Your task to perform on an android device: Open Chrome and go to settings Image 0: 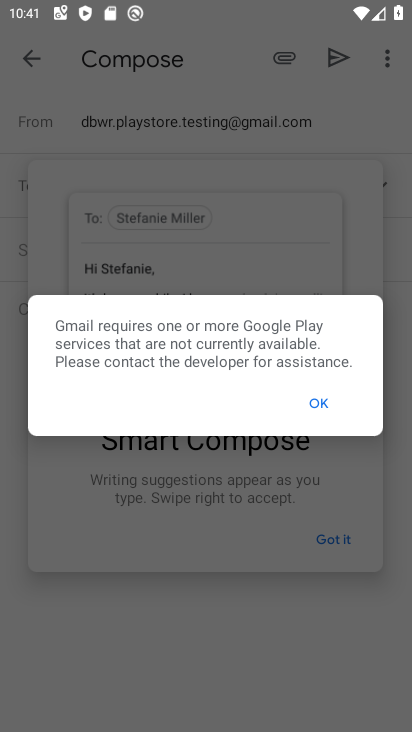
Step 0: press home button
Your task to perform on an android device: Open Chrome and go to settings Image 1: 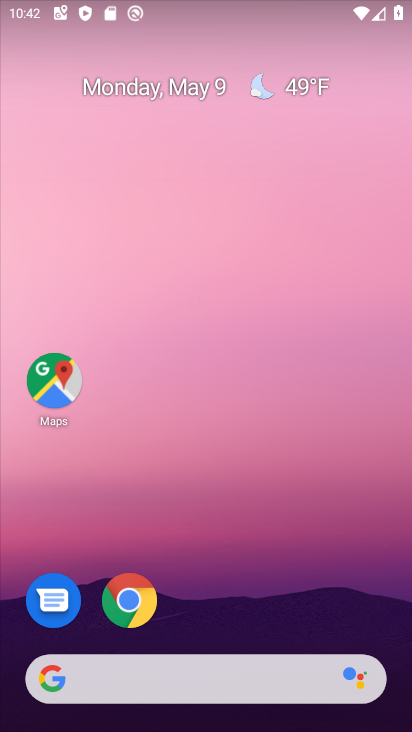
Step 1: drag from (304, 600) to (340, 165)
Your task to perform on an android device: Open Chrome and go to settings Image 2: 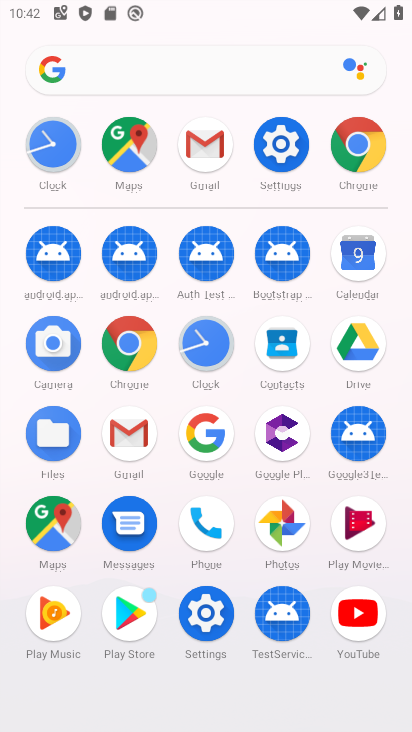
Step 2: click (296, 148)
Your task to perform on an android device: Open Chrome and go to settings Image 3: 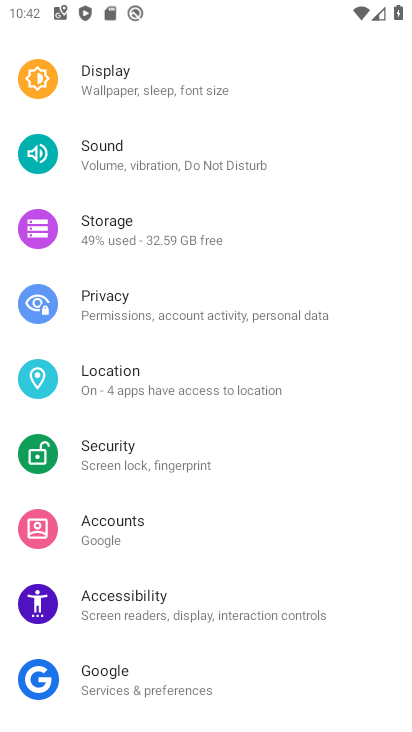
Step 3: press home button
Your task to perform on an android device: Open Chrome and go to settings Image 4: 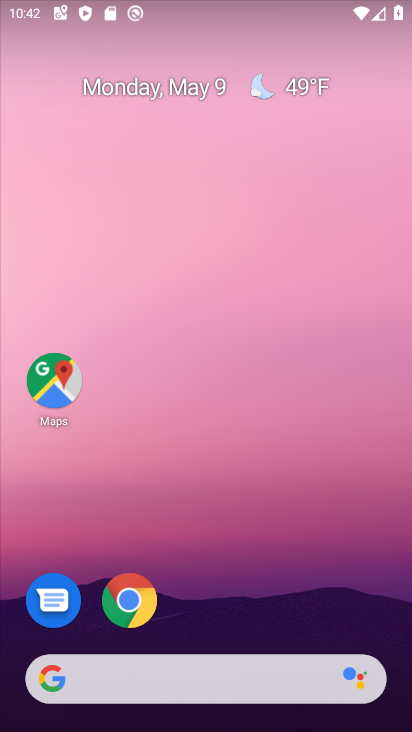
Step 4: drag from (349, 585) to (324, 170)
Your task to perform on an android device: Open Chrome and go to settings Image 5: 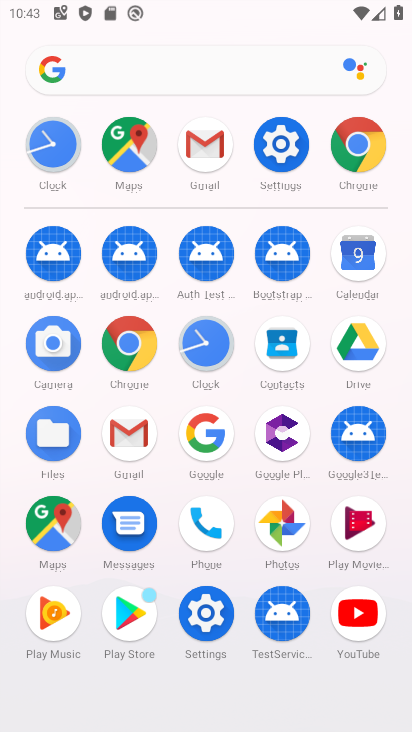
Step 5: click (126, 365)
Your task to perform on an android device: Open Chrome and go to settings Image 6: 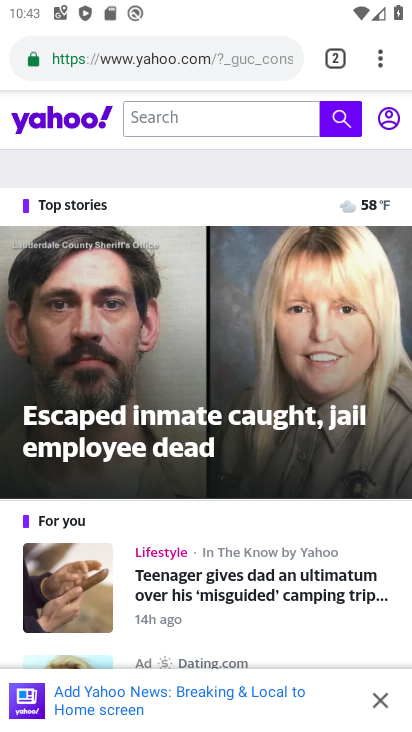
Step 6: task complete